Your task to perform on an android device: turn off sleep mode Image 0: 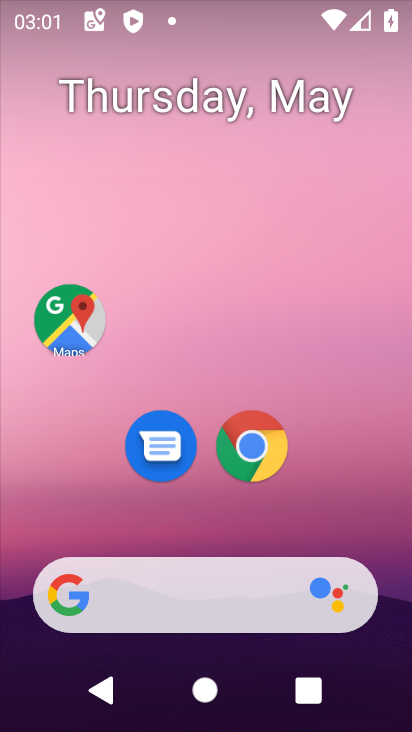
Step 0: drag from (350, 538) to (388, 7)
Your task to perform on an android device: turn off sleep mode Image 1: 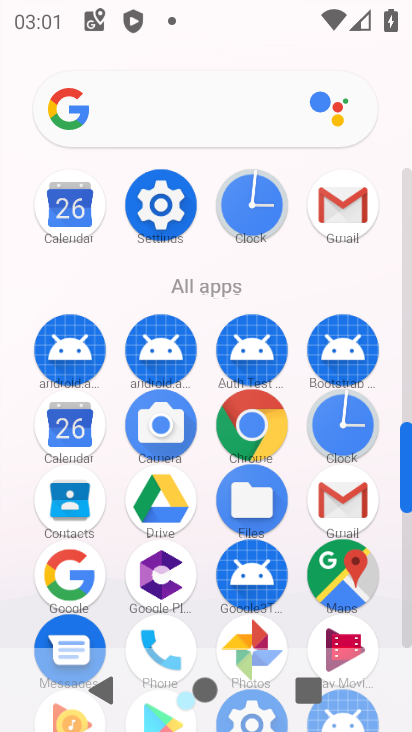
Step 1: click (155, 202)
Your task to perform on an android device: turn off sleep mode Image 2: 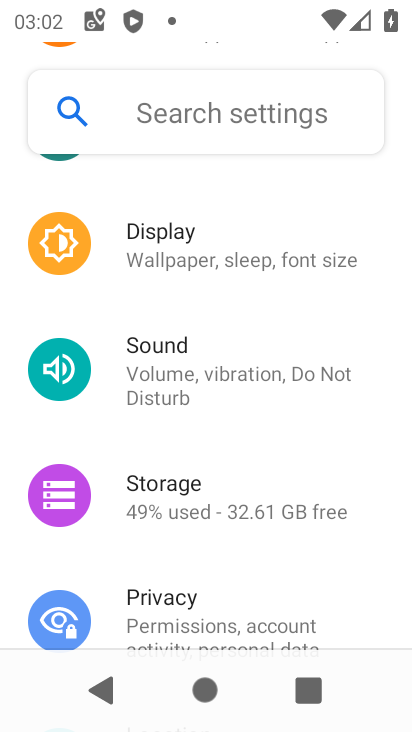
Step 2: click (144, 256)
Your task to perform on an android device: turn off sleep mode Image 3: 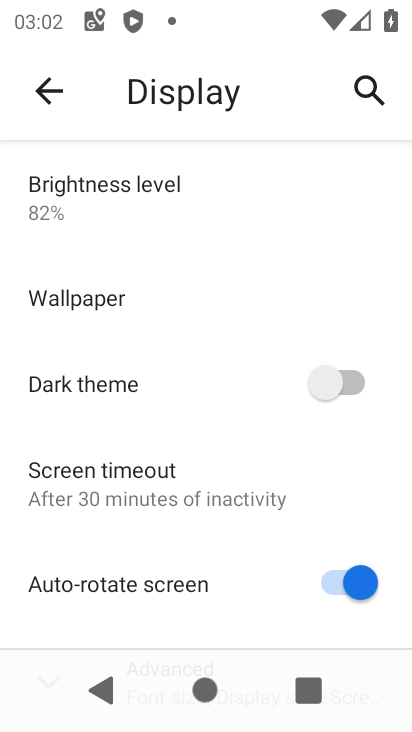
Step 3: drag from (184, 490) to (186, 210)
Your task to perform on an android device: turn off sleep mode Image 4: 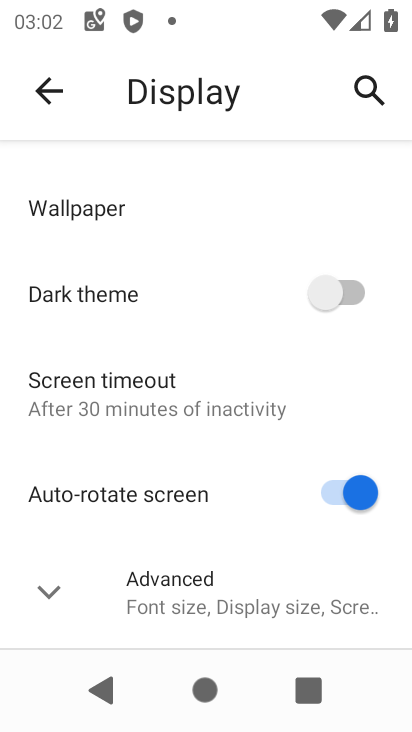
Step 4: click (51, 603)
Your task to perform on an android device: turn off sleep mode Image 5: 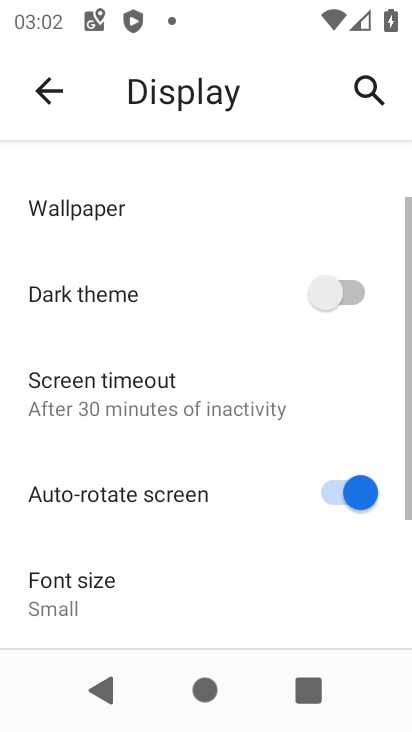
Step 5: task complete